Your task to perform on an android device: Show me the alarms in the clock app Image 0: 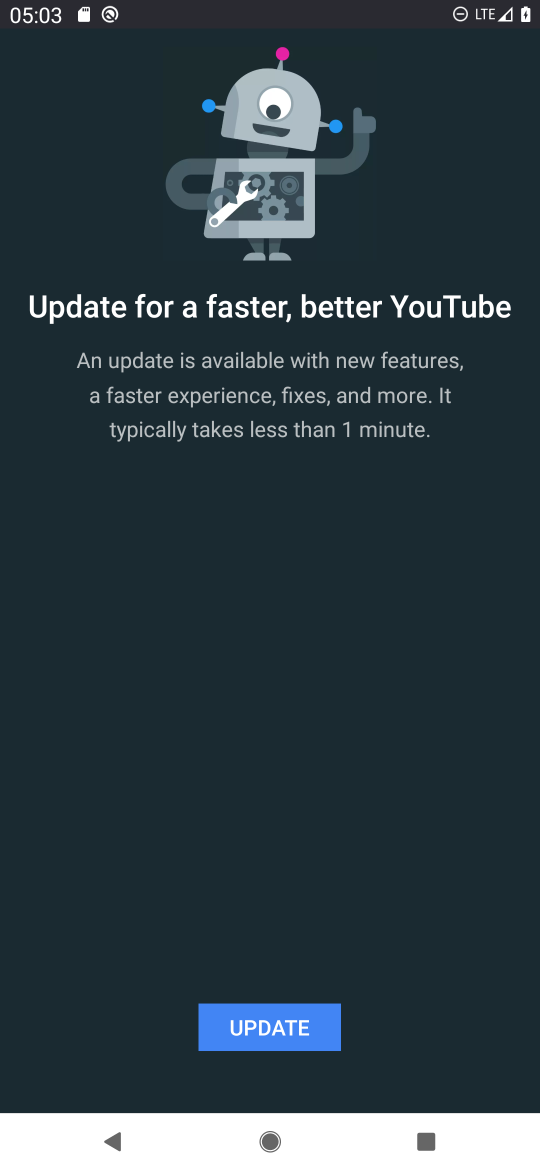
Step 0: press home button
Your task to perform on an android device: Show me the alarms in the clock app Image 1: 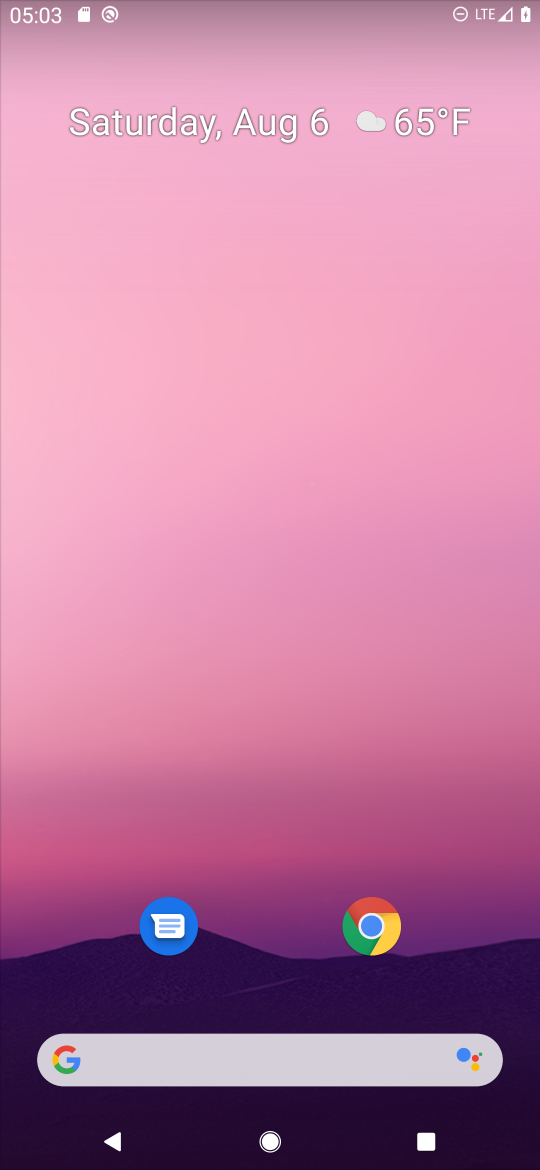
Step 1: drag from (279, 919) to (257, 357)
Your task to perform on an android device: Show me the alarms in the clock app Image 2: 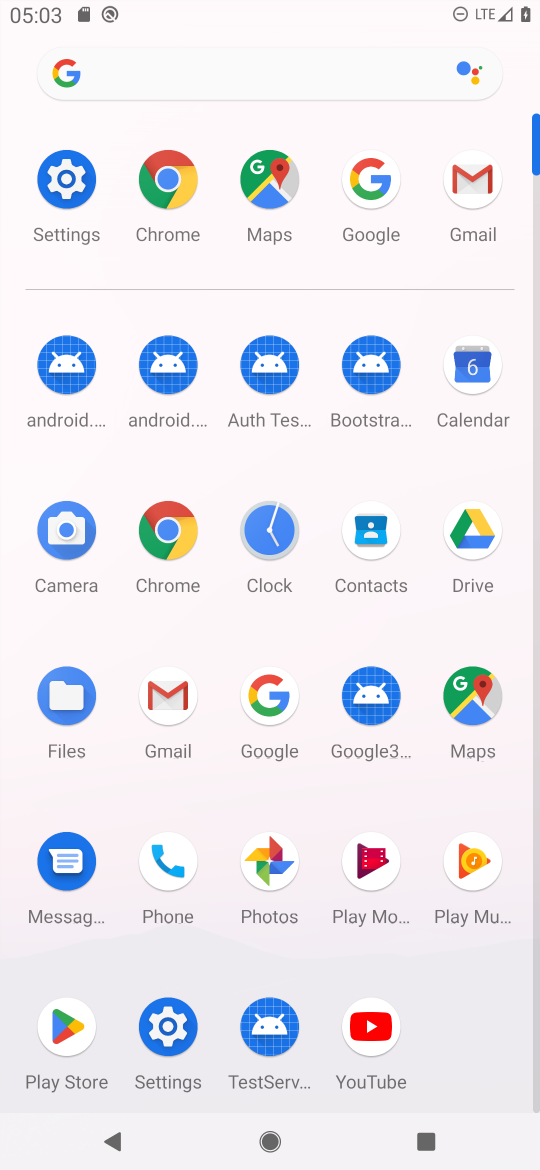
Step 2: click (269, 541)
Your task to perform on an android device: Show me the alarms in the clock app Image 3: 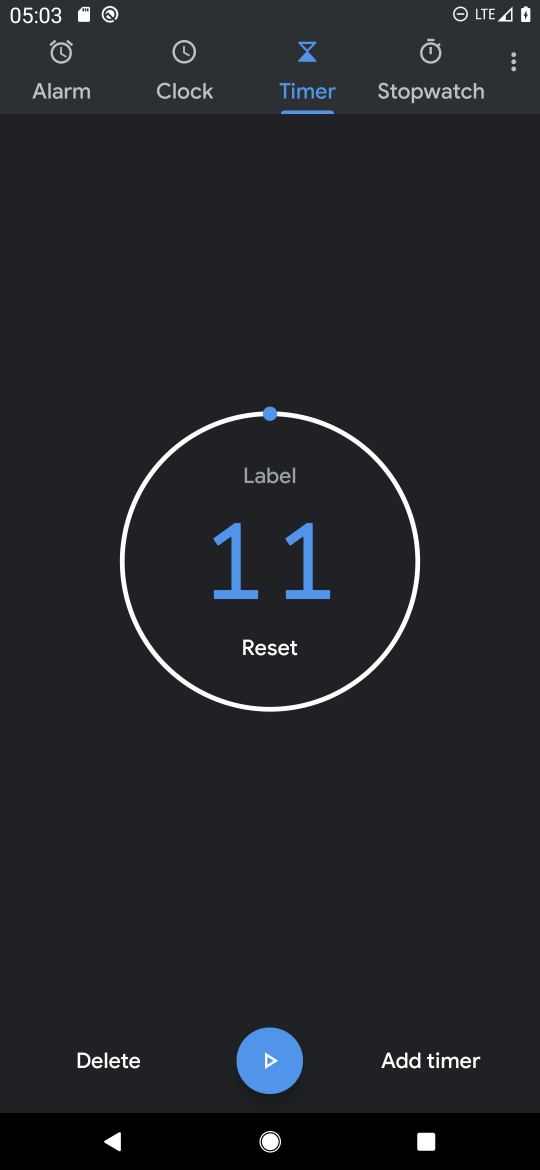
Step 3: click (519, 60)
Your task to perform on an android device: Show me the alarms in the clock app Image 4: 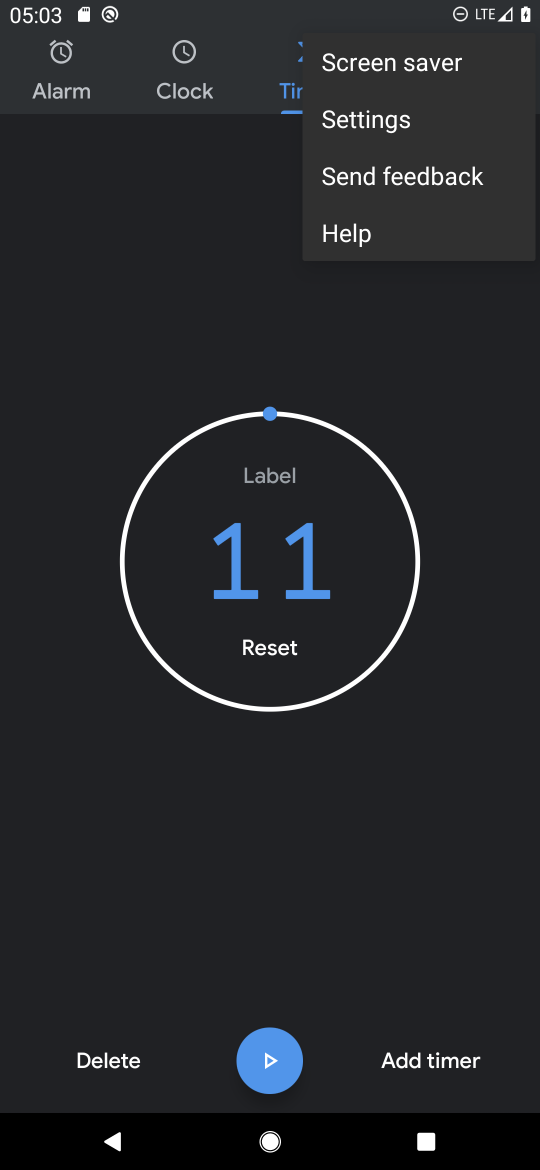
Step 4: click (442, 123)
Your task to perform on an android device: Show me the alarms in the clock app Image 5: 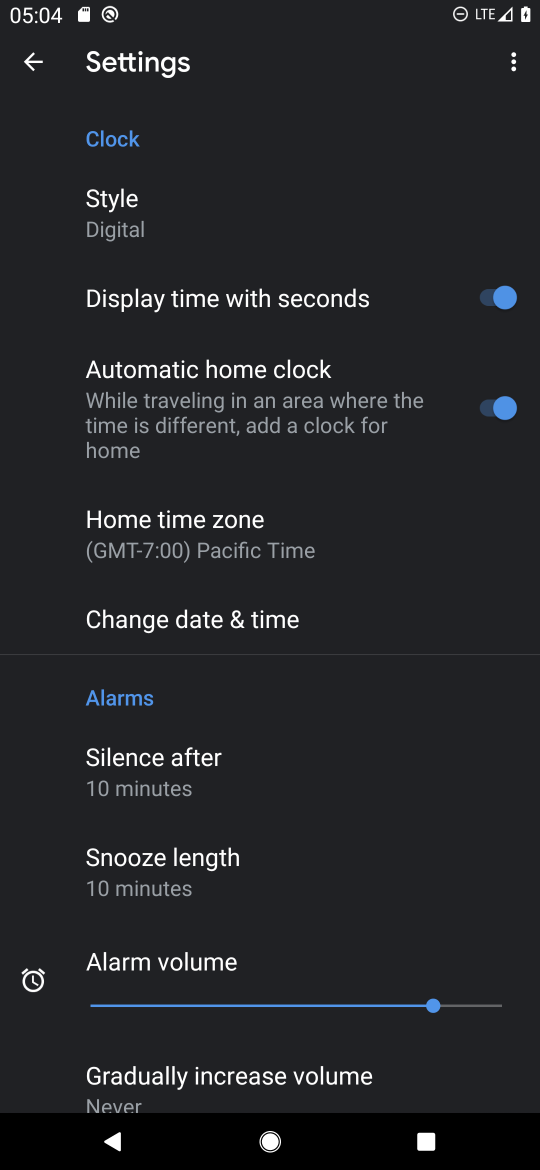
Step 5: click (35, 64)
Your task to perform on an android device: Show me the alarms in the clock app Image 6: 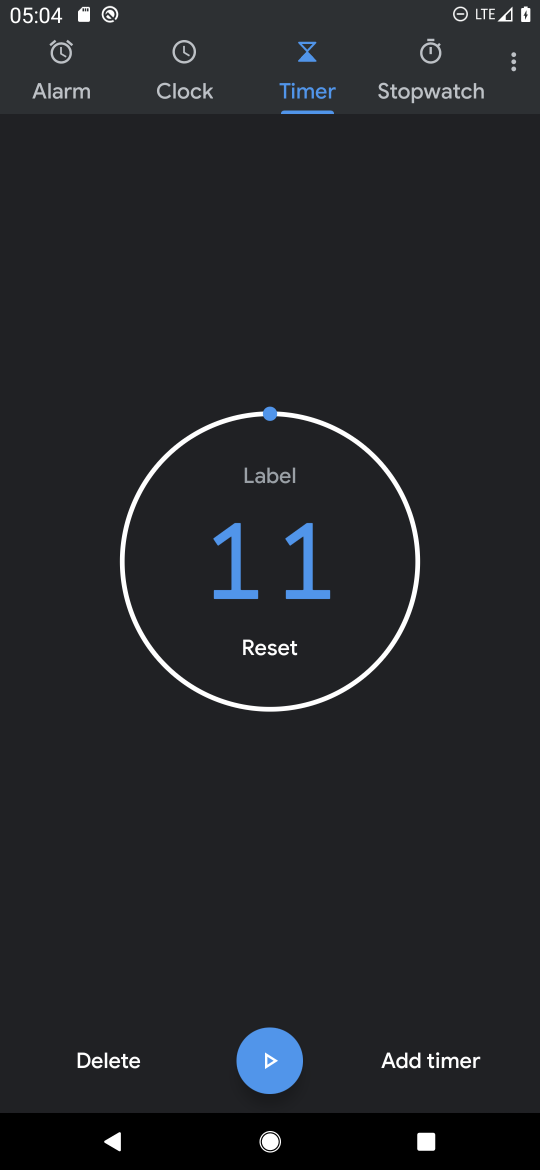
Step 6: click (74, 59)
Your task to perform on an android device: Show me the alarms in the clock app Image 7: 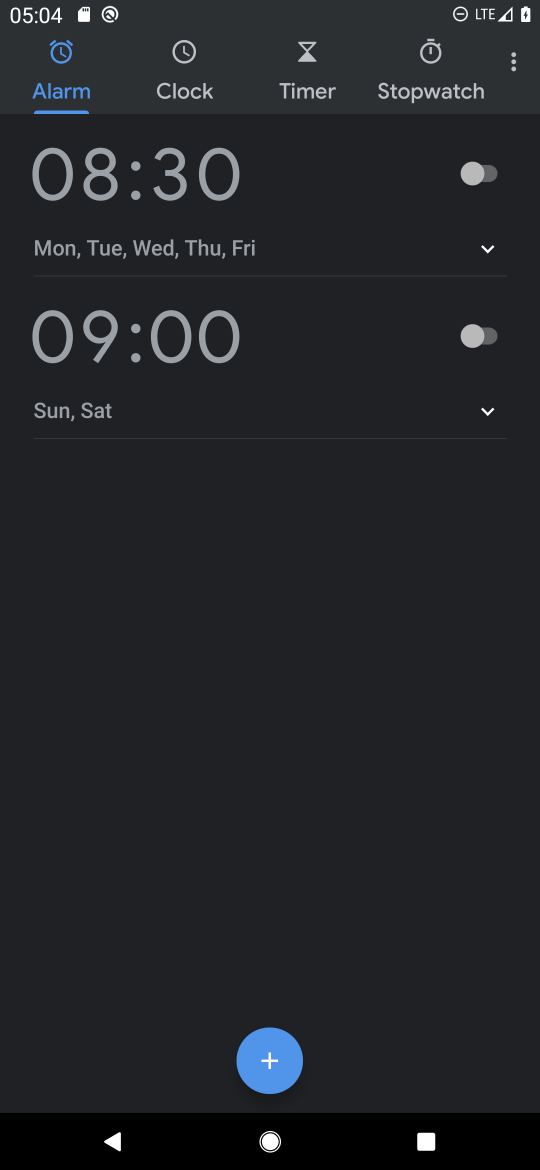
Step 7: task complete